Your task to perform on an android device: set the stopwatch Image 0: 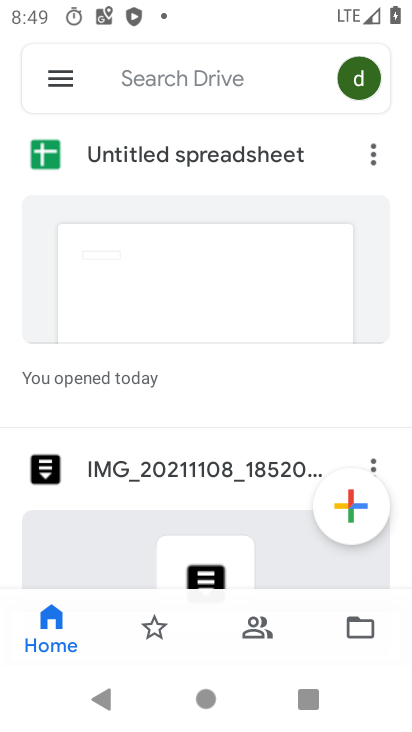
Step 0: press home button
Your task to perform on an android device: set the stopwatch Image 1: 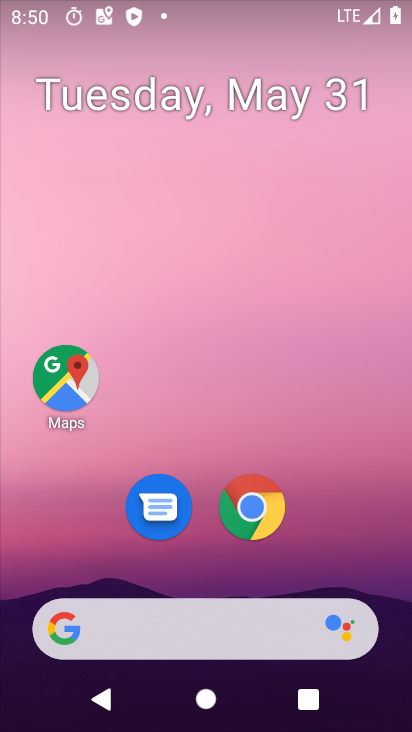
Step 1: drag from (0, 531) to (208, 143)
Your task to perform on an android device: set the stopwatch Image 2: 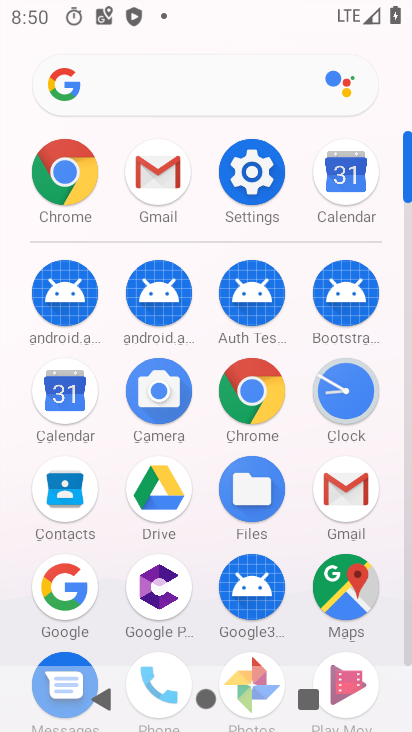
Step 2: click (341, 385)
Your task to perform on an android device: set the stopwatch Image 3: 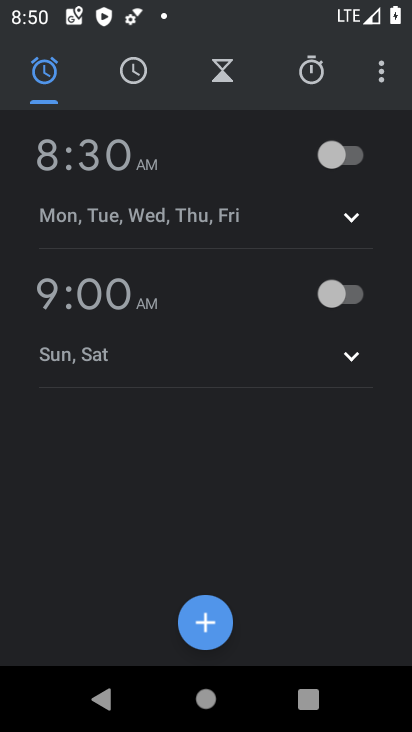
Step 3: click (309, 80)
Your task to perform on an android device: set the stopwatch Image 4: 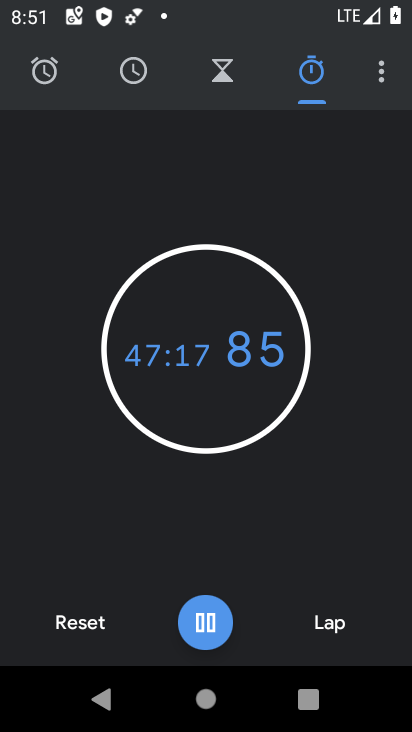
Step 4: click (83, 619)
Your task to perform on an android device: set the stopwatch Image 5: 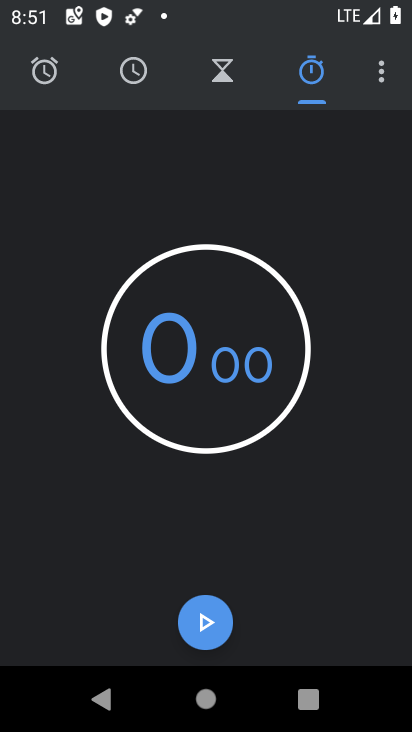
Step 5: click (208, 626)
Your task to perform on an android device: set the stopwatch Image 6: 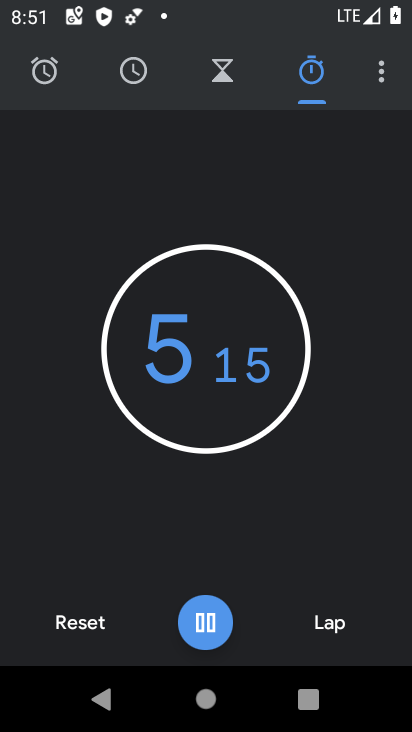
Step 6: task complete